Your task to perform on an android device: Open Google Chrome and open the bookmarks view Image 0: 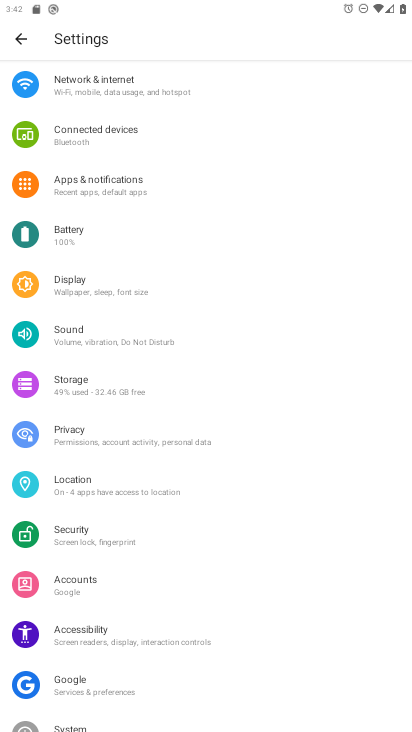
Step 0: press home button
Your task to perform on an android device: Open Google Chrome and open the bookmarks view Image 1: 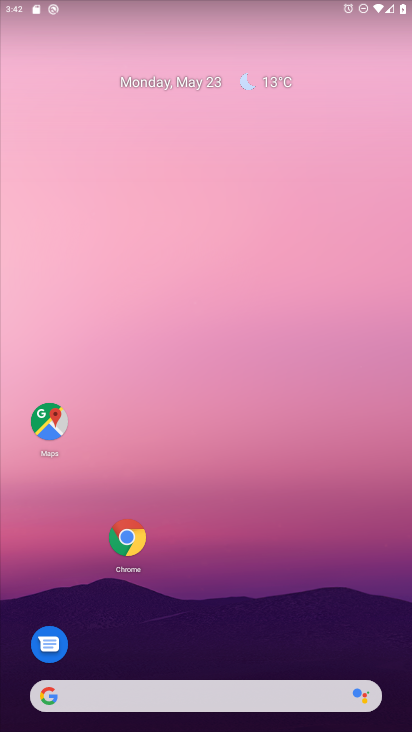
Step 1: click (140, 546)
Your task to perform on an android device: Open Google Chrome and open the bookmarks view Image 2: 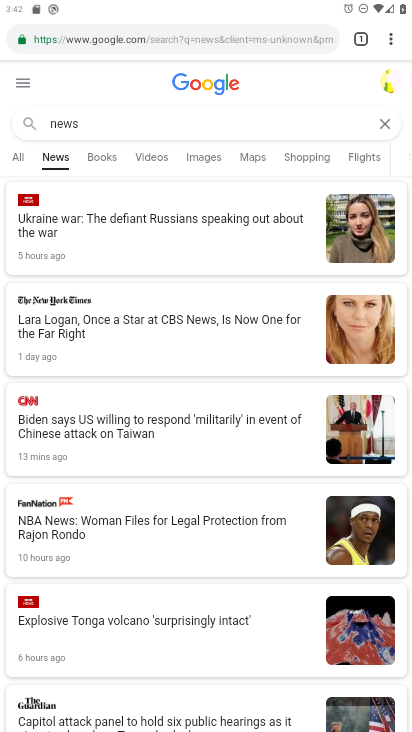
Step 2: task complete